Your task to perform on an android device: change the upload size in google photos Image 0: 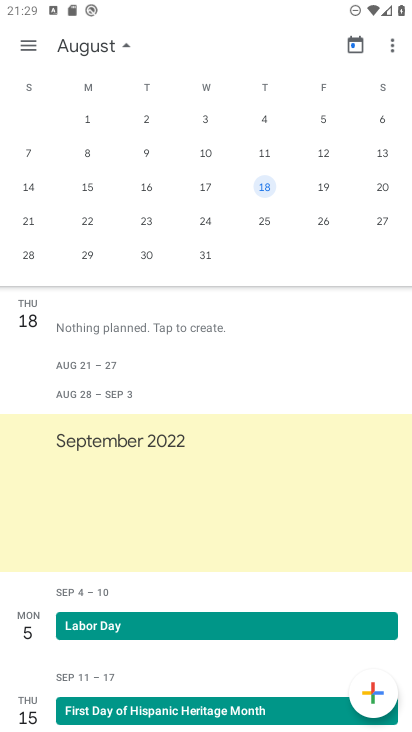
Step 0: press home button
Your task to perform on an android device: change the upload size in google photos Image 1: 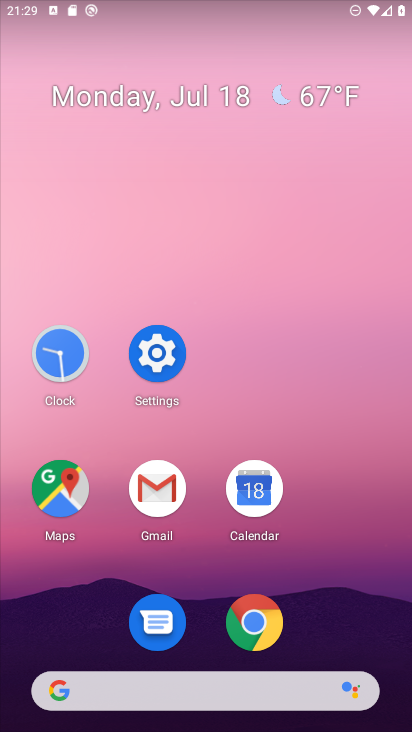
Step 1: drag from (399, 688) to (397, 145)
Your task to perform on an android device: change the upload size in google photos Image 2: 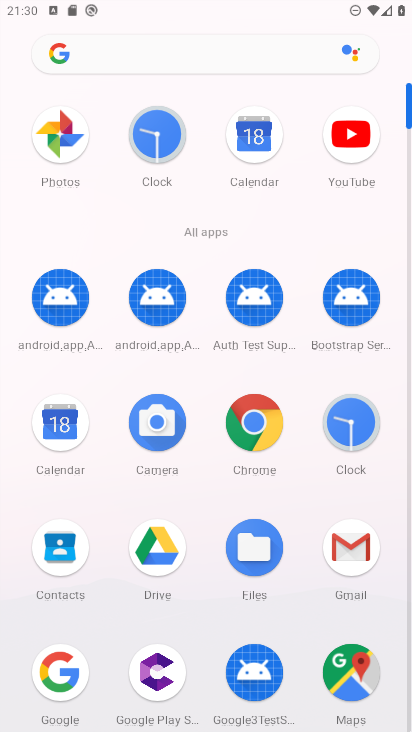
Step 2: drag from (296, 651) to (288, 246)
Your task to perform on an android device: change the upload size in google photos Image 3: 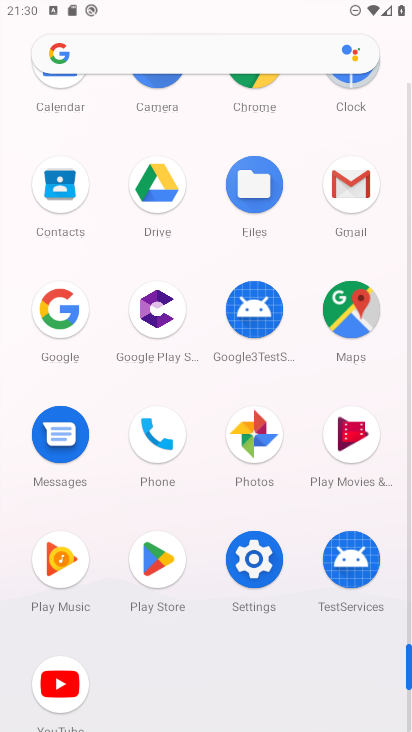
Step 3: click (259, 436)
Your task to perform on an android device: change the upload size in google photos Image 4: 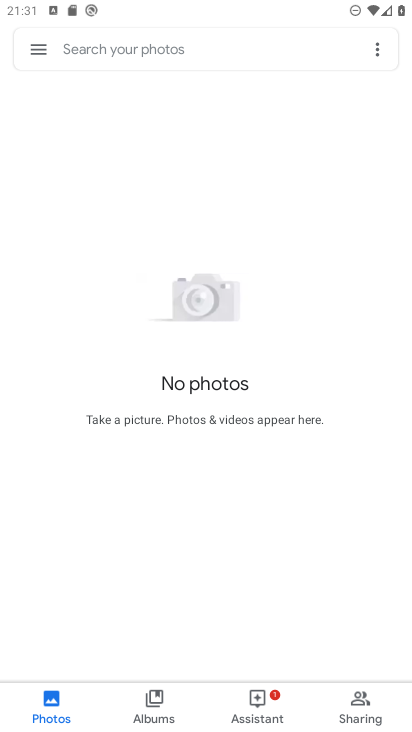
Step 4: click (36, 48)
Your task to perform on an android device: change the upload size in google photos Image 5: 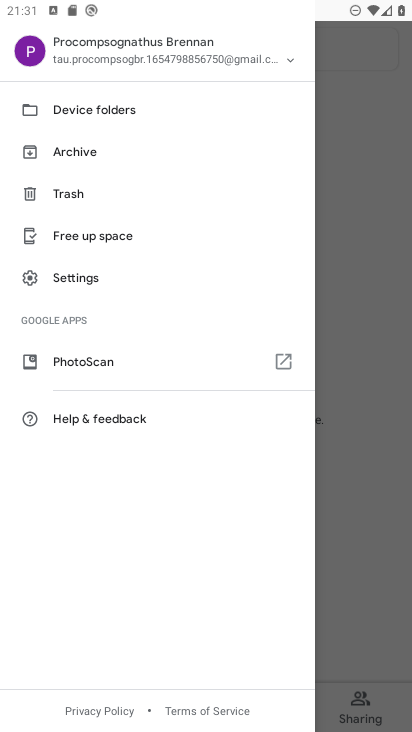
Step 5: click (48, 276)
Your task to perform on an android device: change the upload size in google photos Image 6: 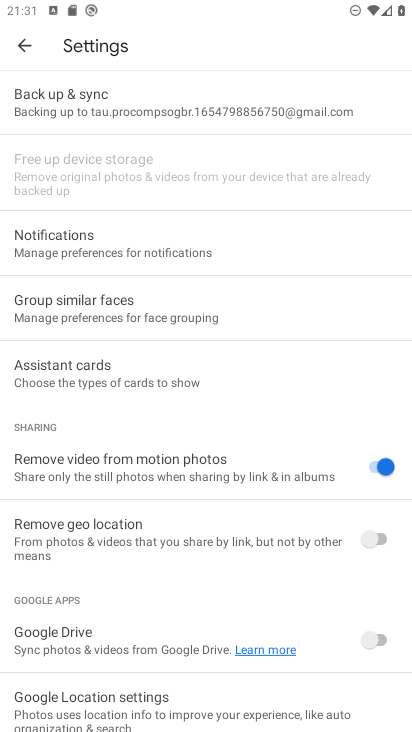
Step 6: click (64, 101)
Your task to perform on an android device: change the upload size in google photos Image 7: 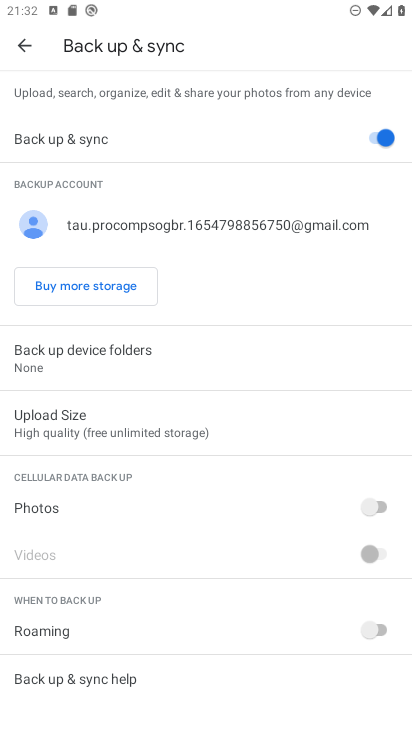
Step 7: task complete